Your task to perform on an android device: Open CNN.com Image 0: 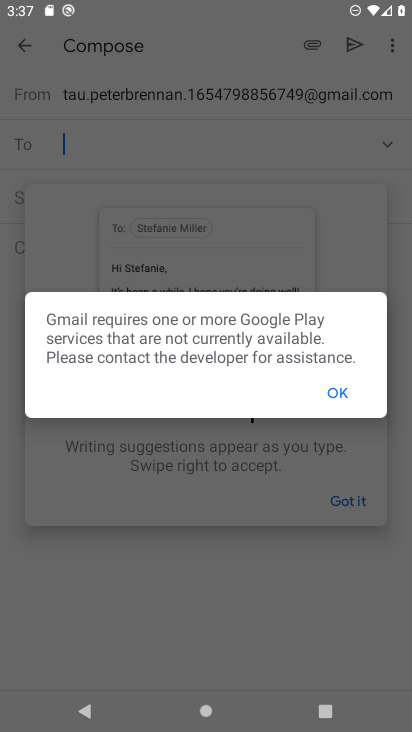
Step 0: press home button
Your task to perform on an android device: Open CNN.com Image 1: 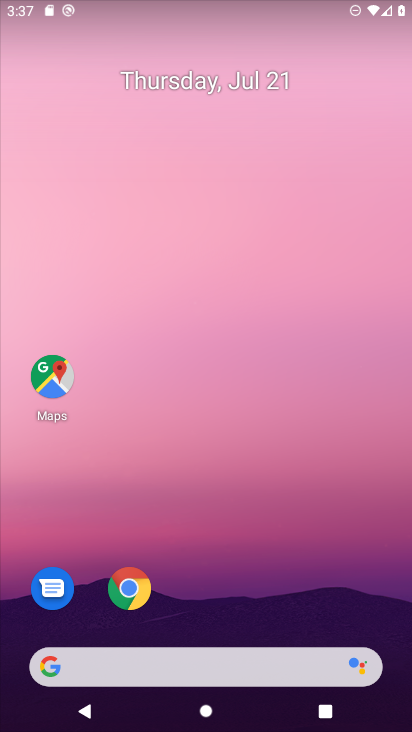
Step 1: drag from (201, 661) to (245, 142)
Your task to perform on an android device: Open CNN.com Image 2: 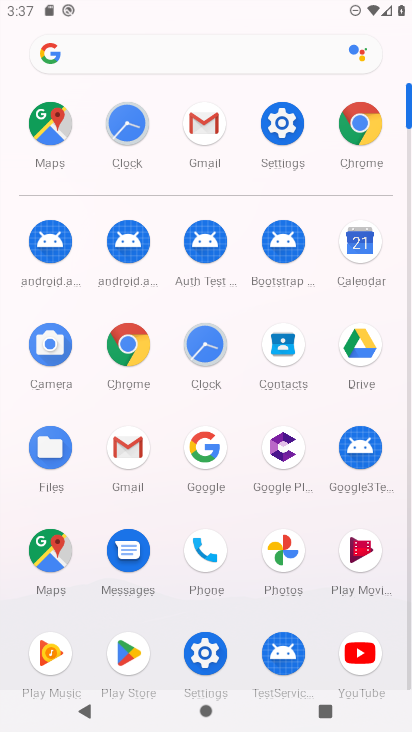
Step 2: click (359, 157)
Your task to perform on an android device: Open CNN.com Image 3: 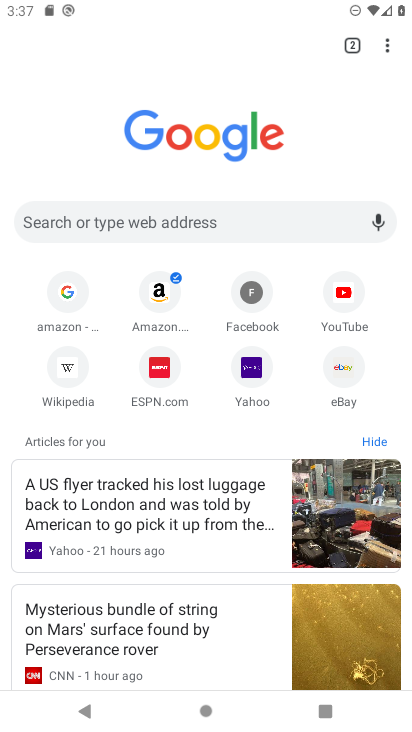
Step 3: click (158, 236)
Your task to perform on an android device: Open CNN.com Image 4: 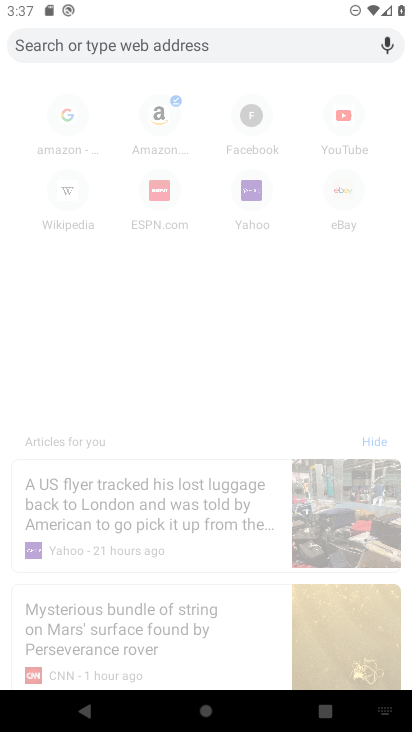
Step 4: type "cnn"
Your task to perform on an android device: Open CNN.com Image 5: 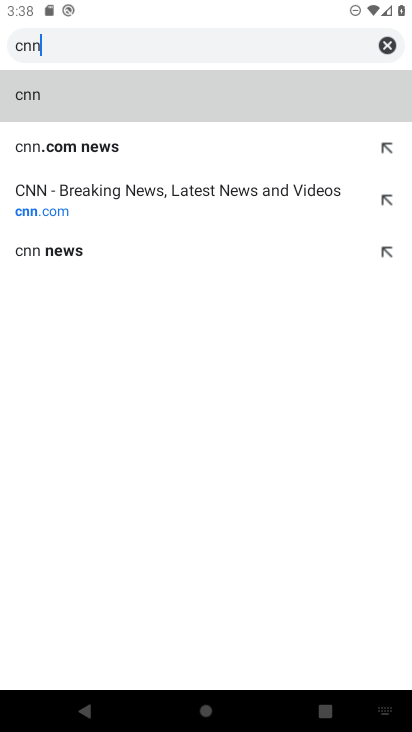
Step 5: click (298, 198)
Your task to perform on an android device: Open CNN.com Image 6: 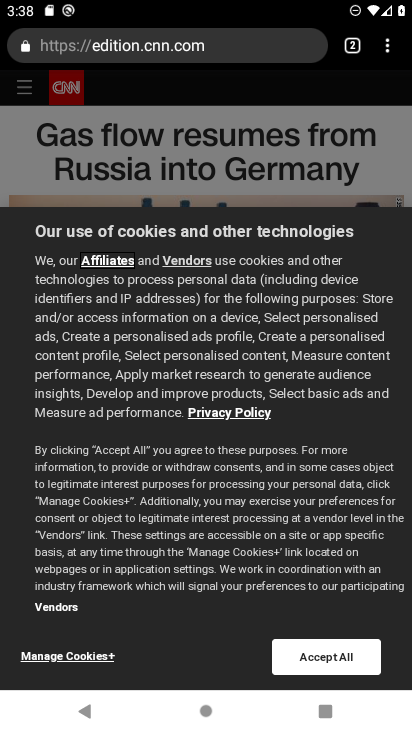
Step 6: task complete